Your task to perform on an android device: see sites visited before in the chrome app Image 0: 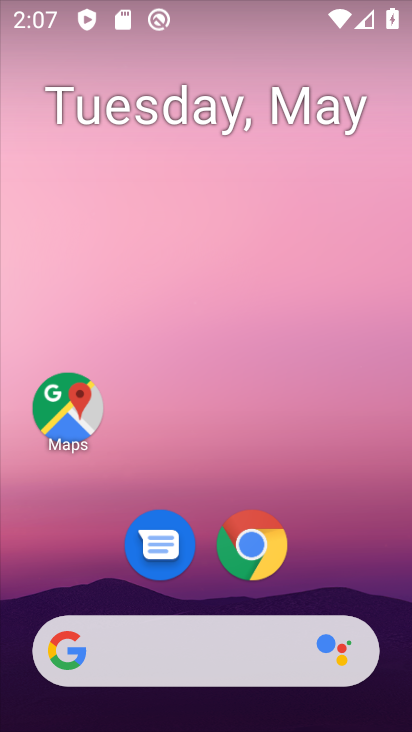
Step 0: drag from (198, 440) to (283, 33)
Your task to perform on an android device: see sites visited before in the chrome app Image 1: 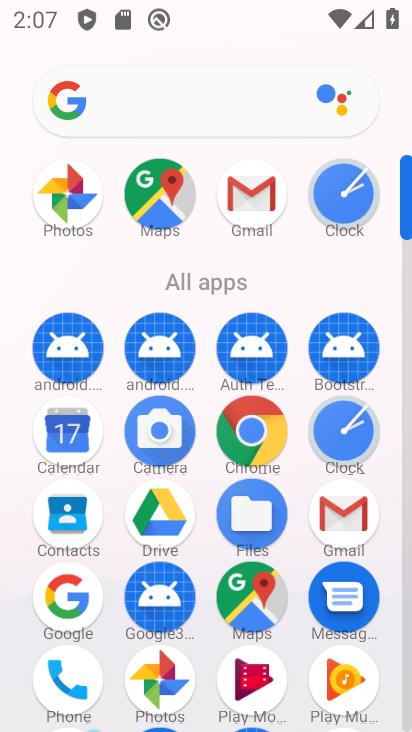
Step 1: click (245, 441)
Your task to perform on an android device: see sites visited before in the chrome app Image 2: 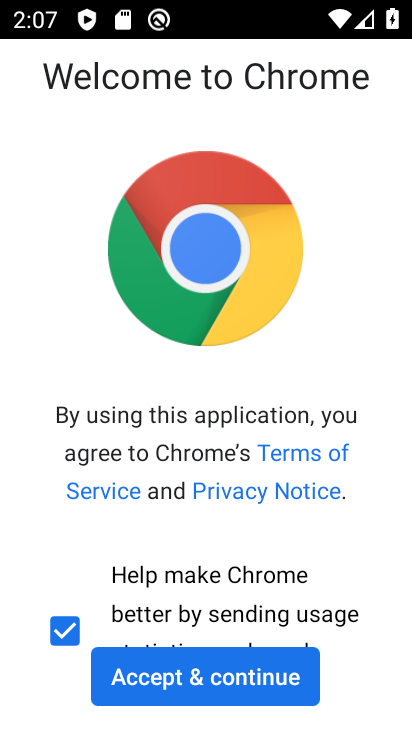
Step 2: click (259, 683)
Your task to perform on an android device: see sites visited before in the chrome app Image 3: 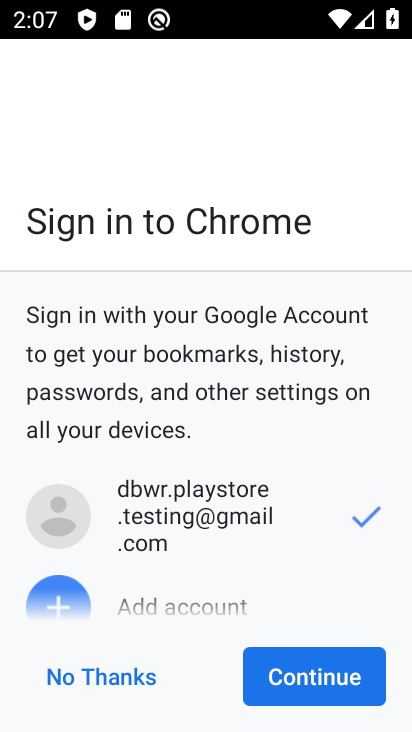
Step 3: click (259, 683)
Your task to perform on an android device: see sites visited before in the chrome app Image 4: 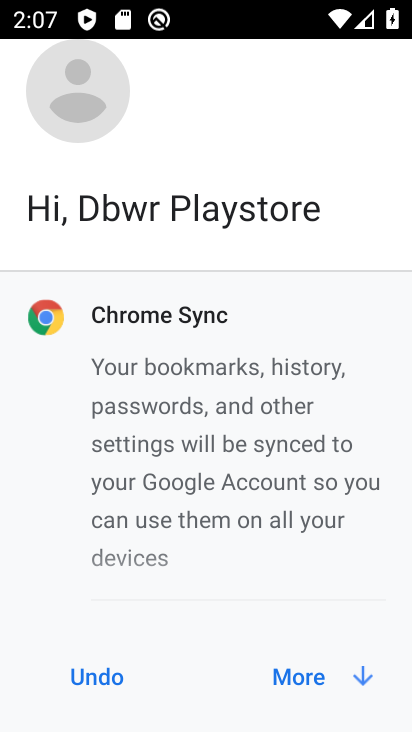
Step 4: click (290, 674)
Your task to perform on an android device: see sites visited before in the chrome app Image 5: 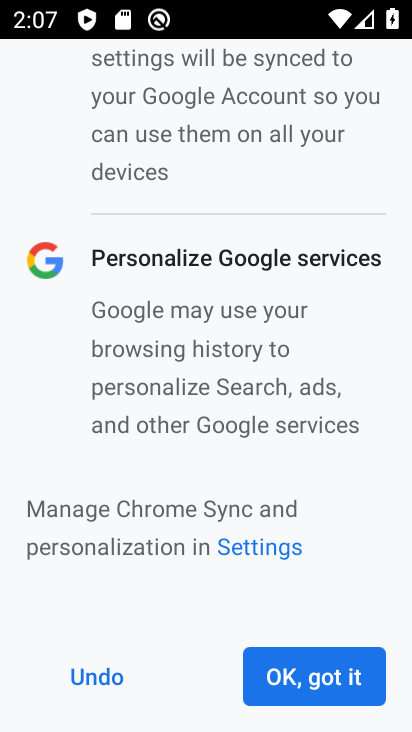
Step 5: click (290, 674)
Your task to perform on an android device: see sites visited before in the chrome app Image 6: 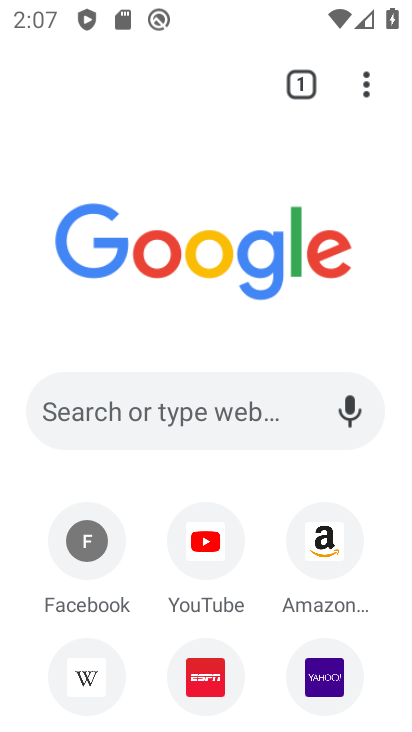
Step 6: click (366, 89)
Your task to perform on an android device: see sites visited before in the chrome app Image 7: 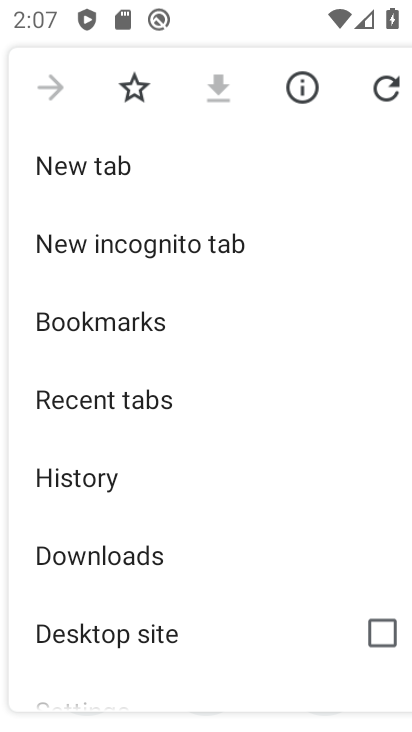
Step 7: click (117, 489)
Your task to perform on an android device: see sites visited before in the chrome app Image 8: 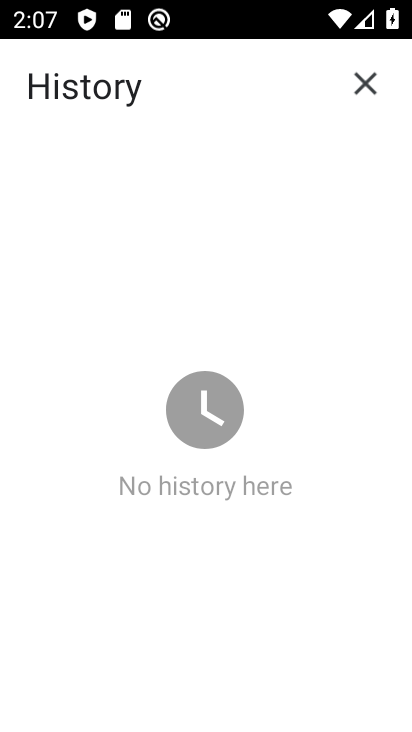
Step 8: task complete